Your task to perform on an android device: Go to Google maps Image 0: 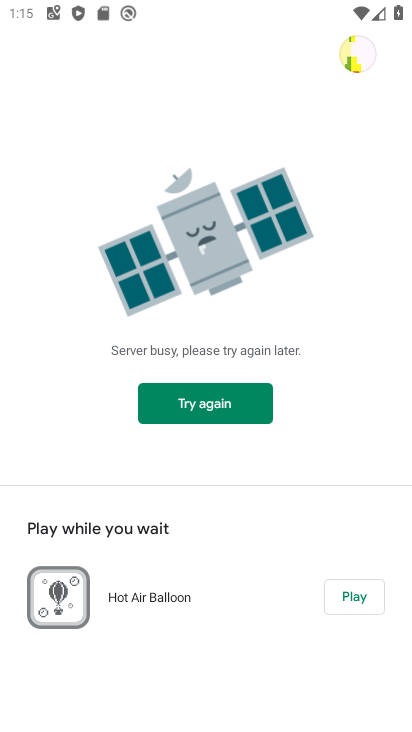
Step 0: press home button
Your task to perform on an android device: Go to Google maps Image 1: 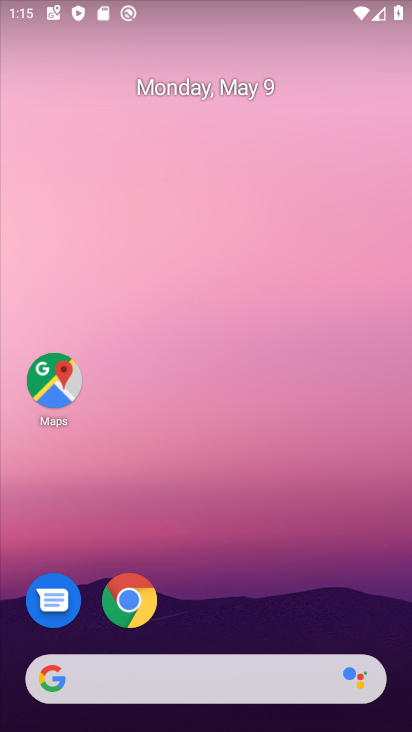
Step 1: click (56, 403)
Your task to perform on an android device: Go to Google maps Image 2: 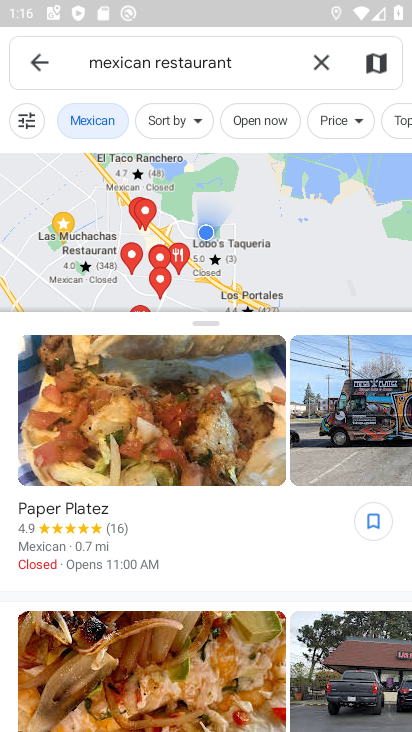
Step 2: click (54, 67)
Your task to perform on an android device: Go to Google maps Image 3: 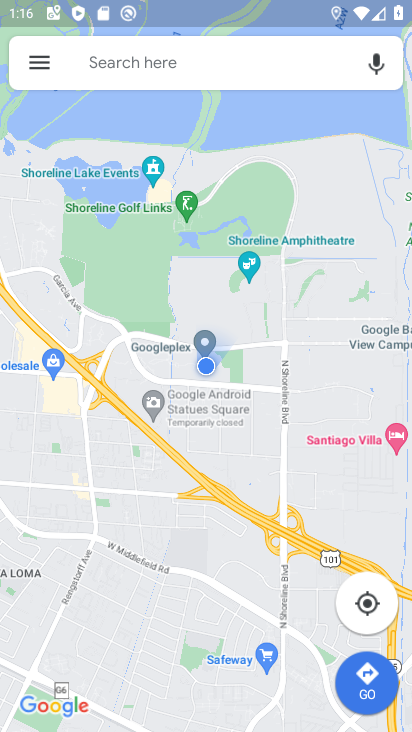
Step 3: task complete